Your task to perform on an android device: turn on notifications settings in the gmail app Image 0: 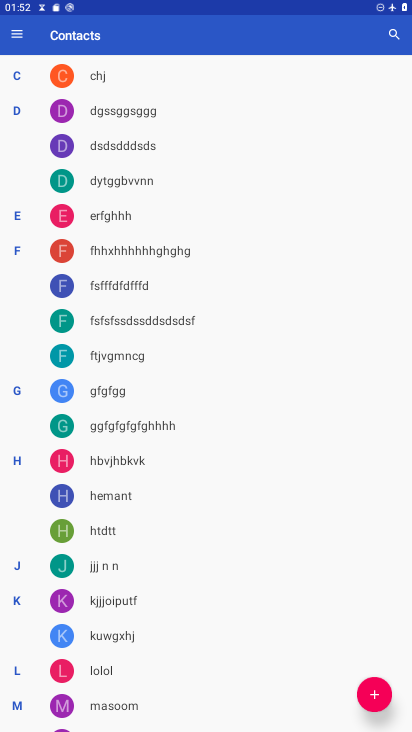
Step 0: press home button
Your task to perform on an android device: turn on notifications settings in the gmail app Image 1: 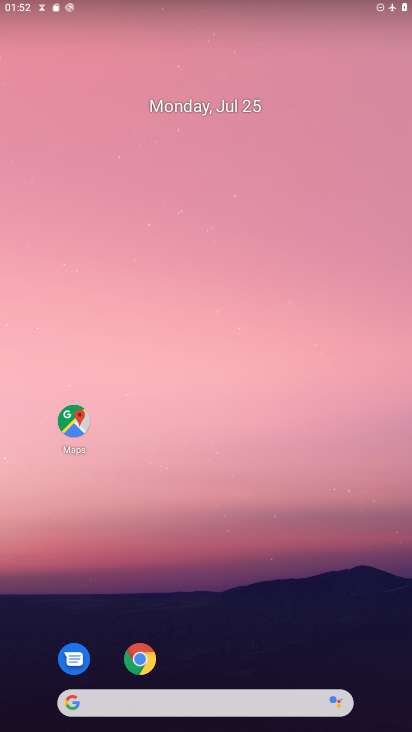
Step 1: drag from (290, 611) to (255, 272)
Your task to perform on an android device: turn on notifications settings in the gmail app Image 2: 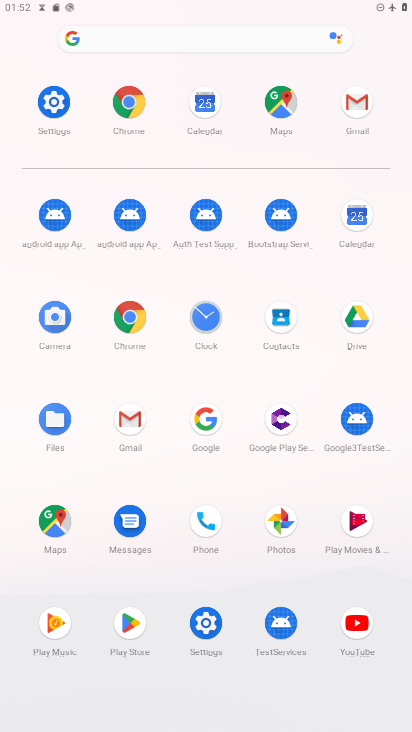
Step 2: click (373, 90)
Your task to perform on an android device: turn on notifications settings in the gmail app Image 3: 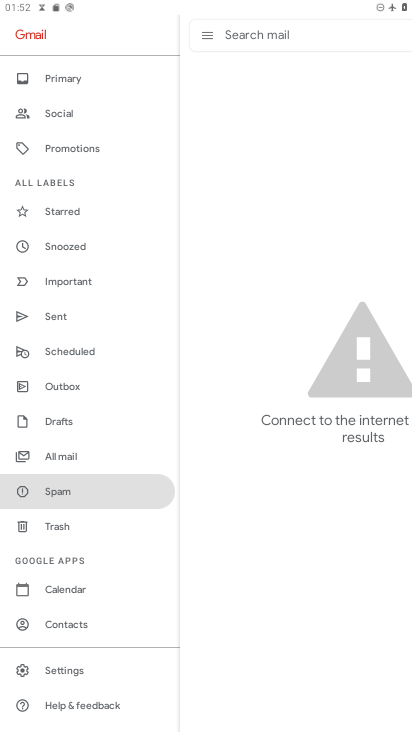
Step 3: click (64, 664)
Your task to perform on an android device: turn on notifications settings in the gmail app Image 4: 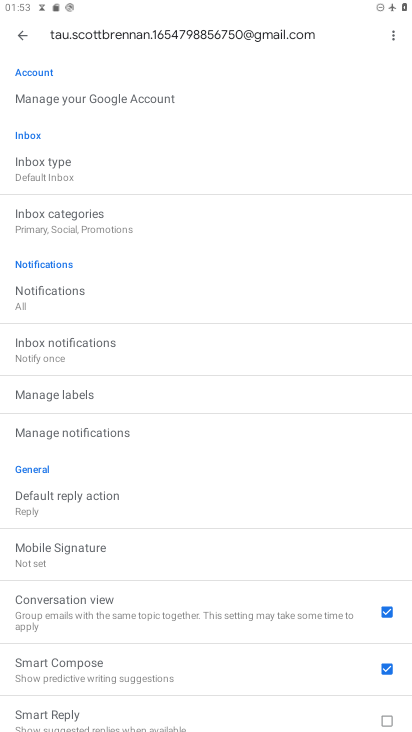
Step 4: click (65, 302)
Your task to perform on an android device: turn on notifications settings in the gmail app Image 5: 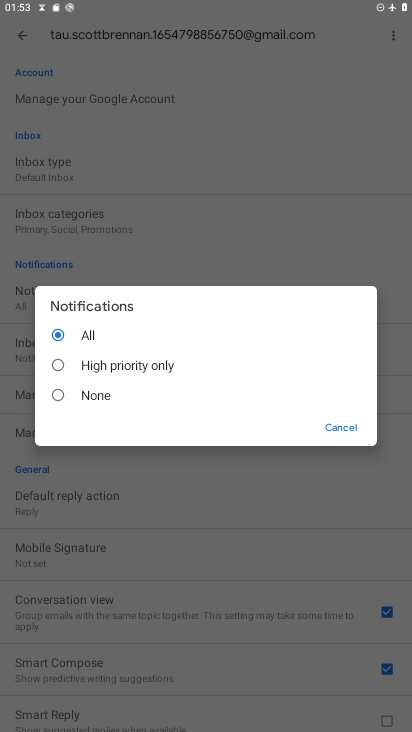
Step 5: task complete